Your task to perform on an android device: turn pop-ups off in chrome Image 0: 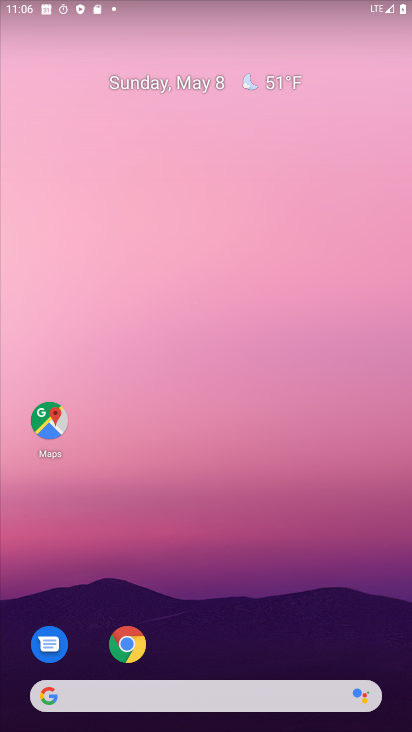
Step 0: drag from (203, 644) to (260, 264)
Your task to perform on an android device: turn pop-ups off in chrome Image 1: 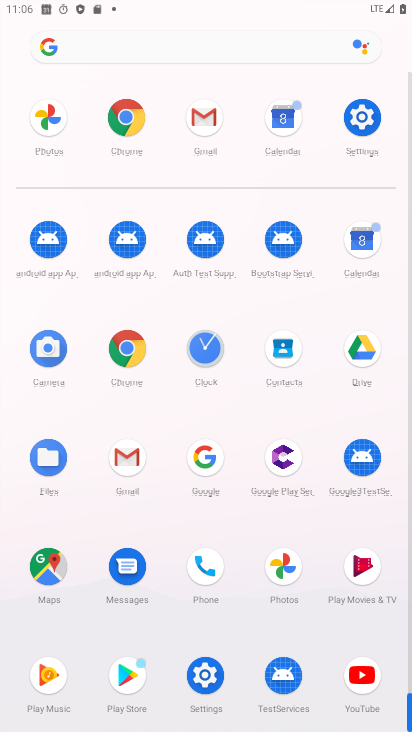
Step 1: click (127, 350)
Your task to perform on an android device: turn pop-ups off in chrome Image 2: 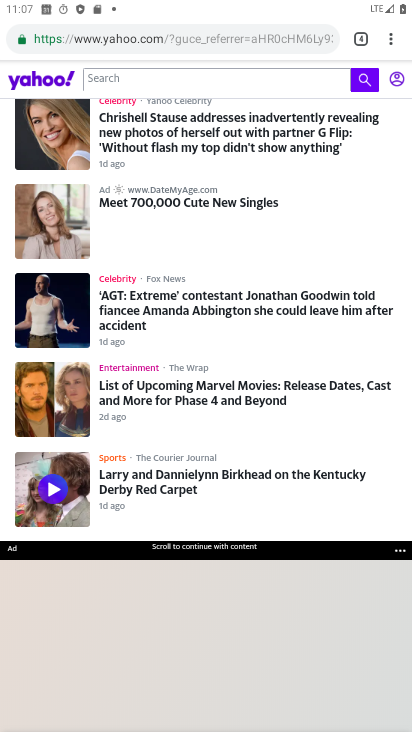
Step 2: click (390, 36)
Your task to perform on an android device: turn pop-ups off in chrome Image 3: 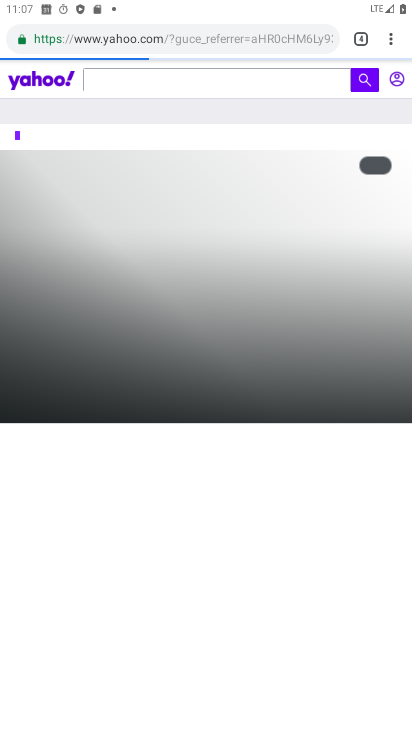
Step 3: click (386, 44)
Your task to perform on an android device: turn pop-ups off in chrome Image 4: 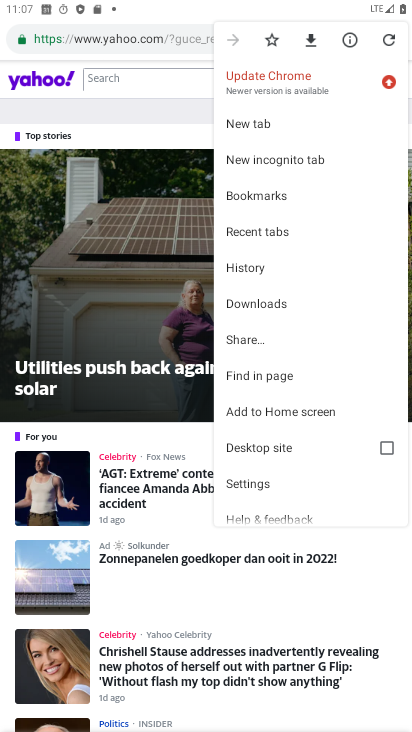
Step 4: click (263, 485)
Your task to perform on an android device: turn pop-ups off in chrome Image 5: 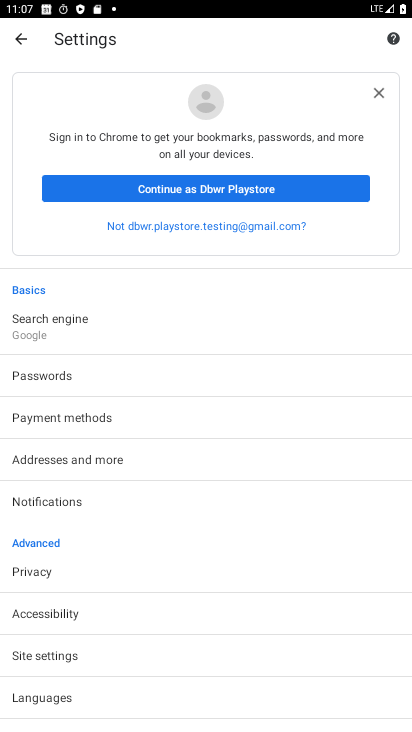
Step 5: drag from (153, 674) to (200, 215)
Your task to perform on an android device: turn pop-ups off in chrome Image 6: 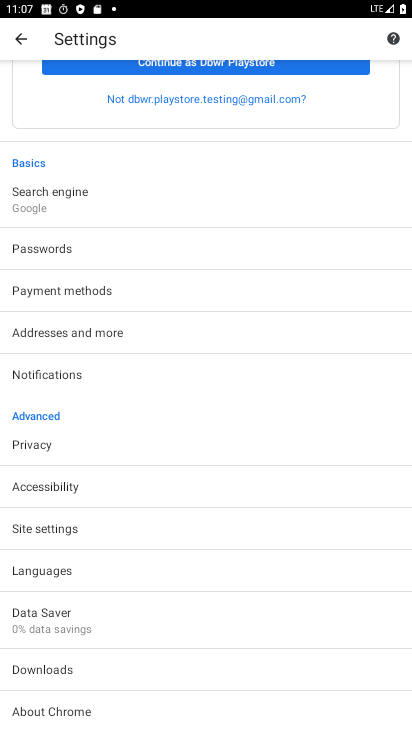
Step 6: click (114, 524)
Your task to perform on an android device: turn pop-ups off in chrome Image 7: 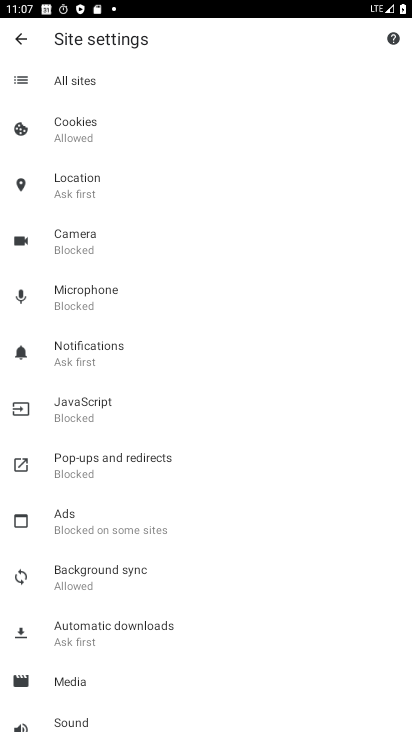
Step 7: click (135, 466)
Your task to perform on an android device: turn pop-ups off in chrome Image 8: 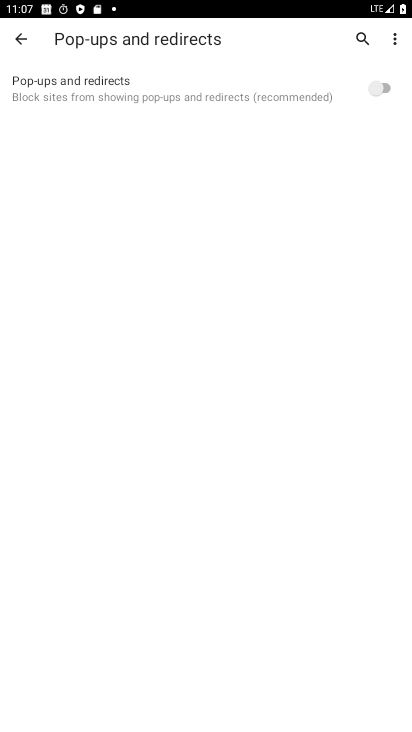
Step 8: click (358, 92)
Your task to perform on an android device: turn pop-ups off in chrome Image 9: 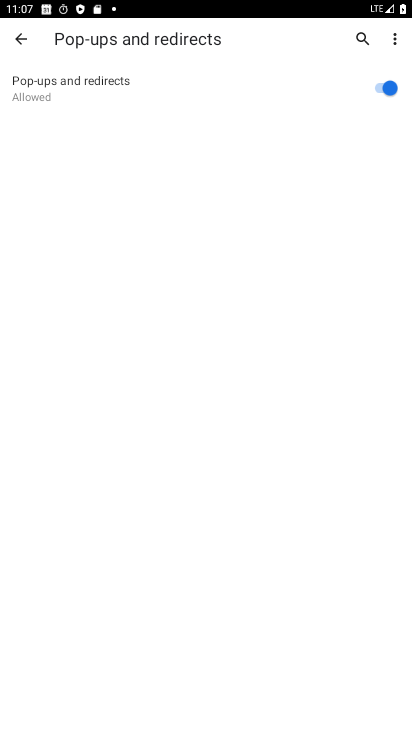
Step 9: click (357, 93)
Your task to perform on an android device: turn pop-ups off in chrome Image 10: 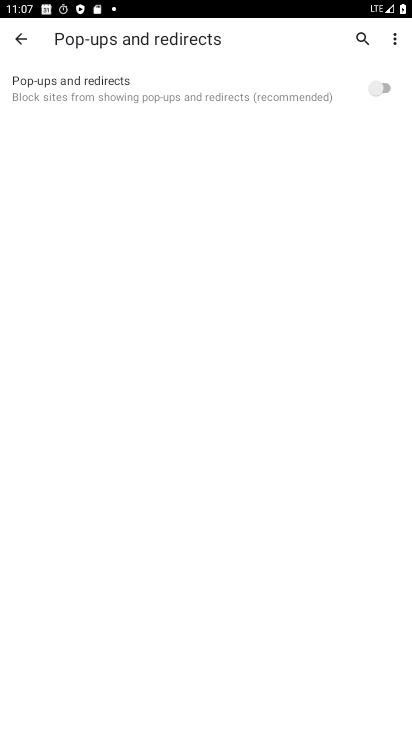
Step 10: task complete